Your task to perform on an android device: Open the stopwatch Image 0: 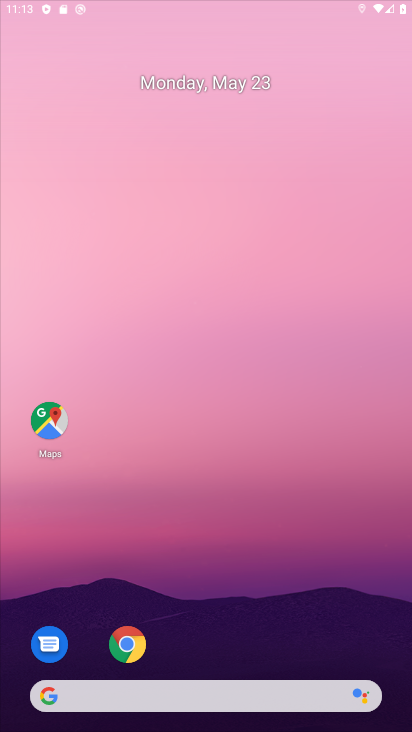
Step 0: drag from (229, 617) to (259, 217)
Your task to perform on an android device: Open the stopwatch Image 1: 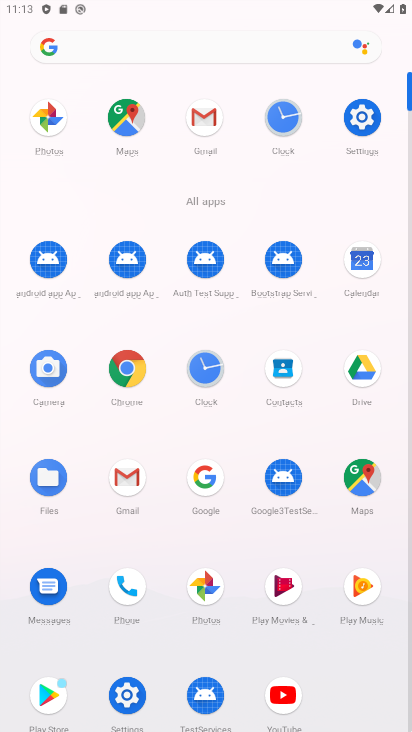
Step 1: click (198, 358)
Your task to perform on an android device: Open the stopwatch Image 2: 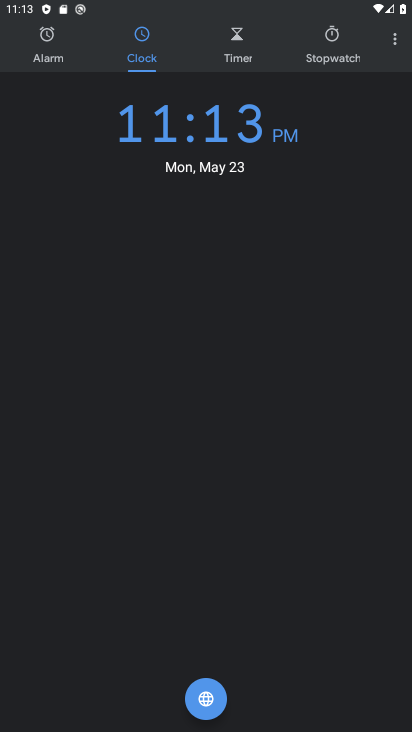
Step 2: click (342, 57)
Your task to perform on an android device: Open the stopwatch Image 3: 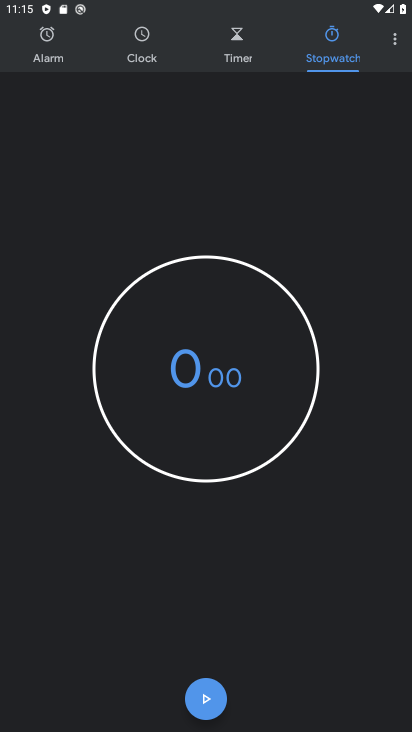
Step 3: task complete